Your task to perform on an android device: open app "DuckDuckGo Privacy Browser" (install if not already installed) Image 0: 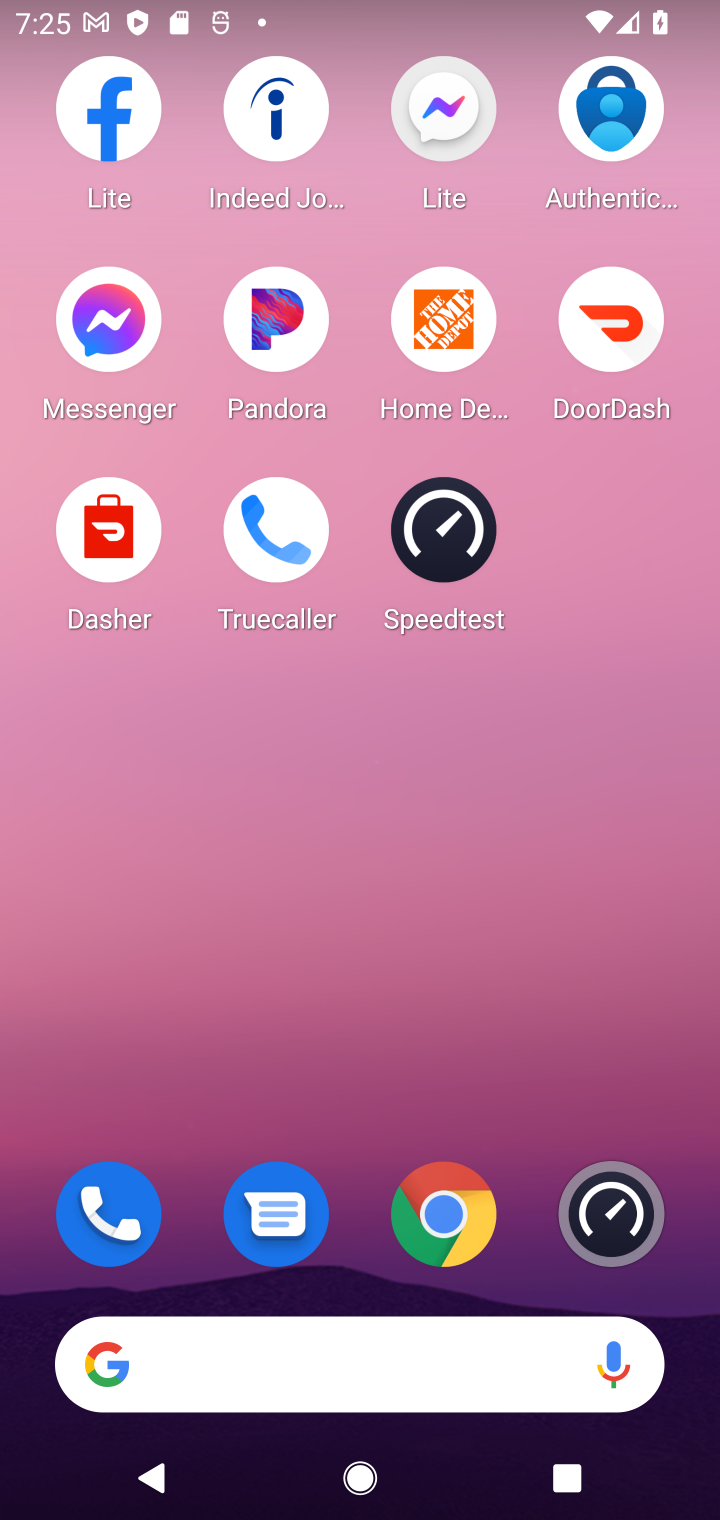
Step 0: drag from (279, 985) to (311, 262)
Your task to perform on an android device: open app "DuckDuckGo Privacy Browser" (install if not already installed) Image 1: 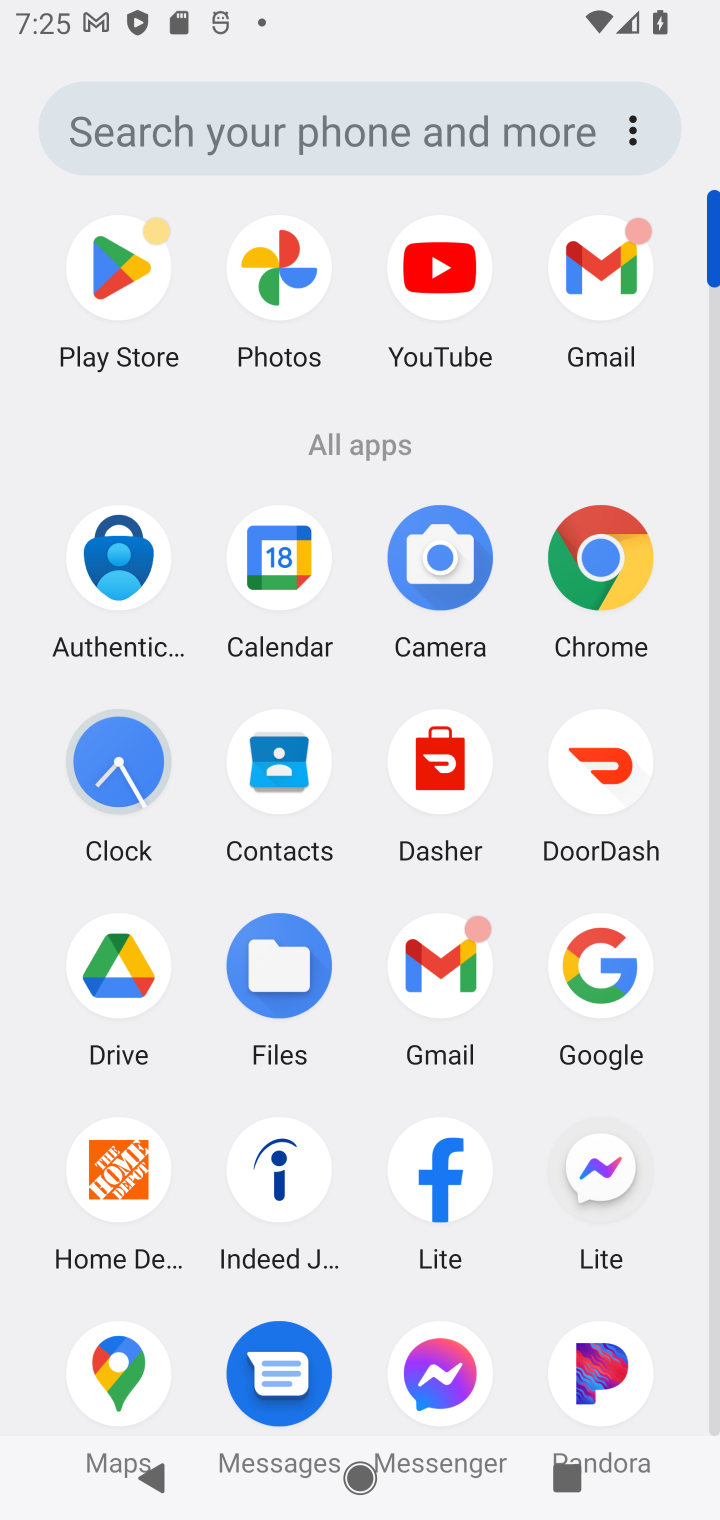
Step 1: click (73, 269)
Your task to perform on an android device: open app "DuckDuckGo Privacy Browser" (install if not already installed) Image 2: 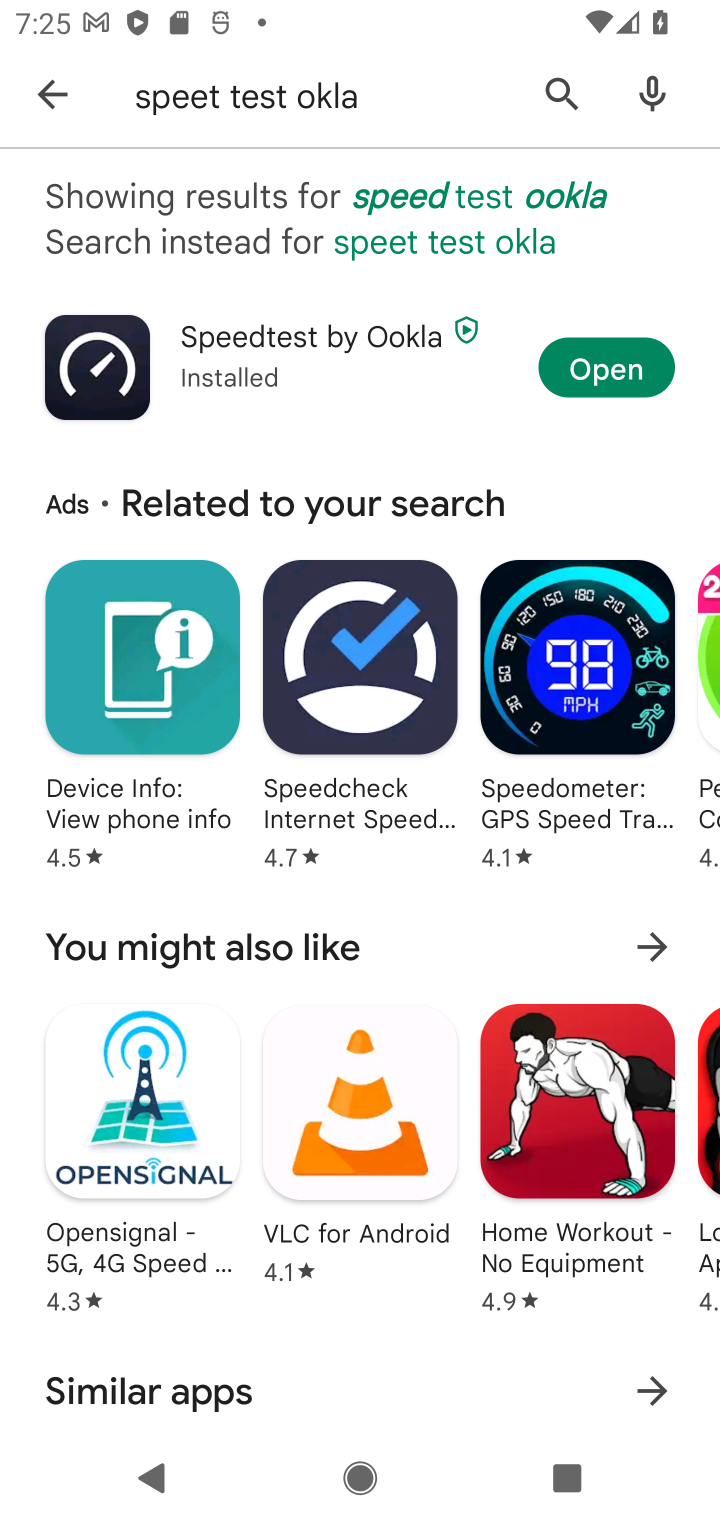
Step 2: click (563, 82)
Your task to perform on an android device: open app "DuckDuckGo Privacy Browser" (install if not already installed) Image 3: 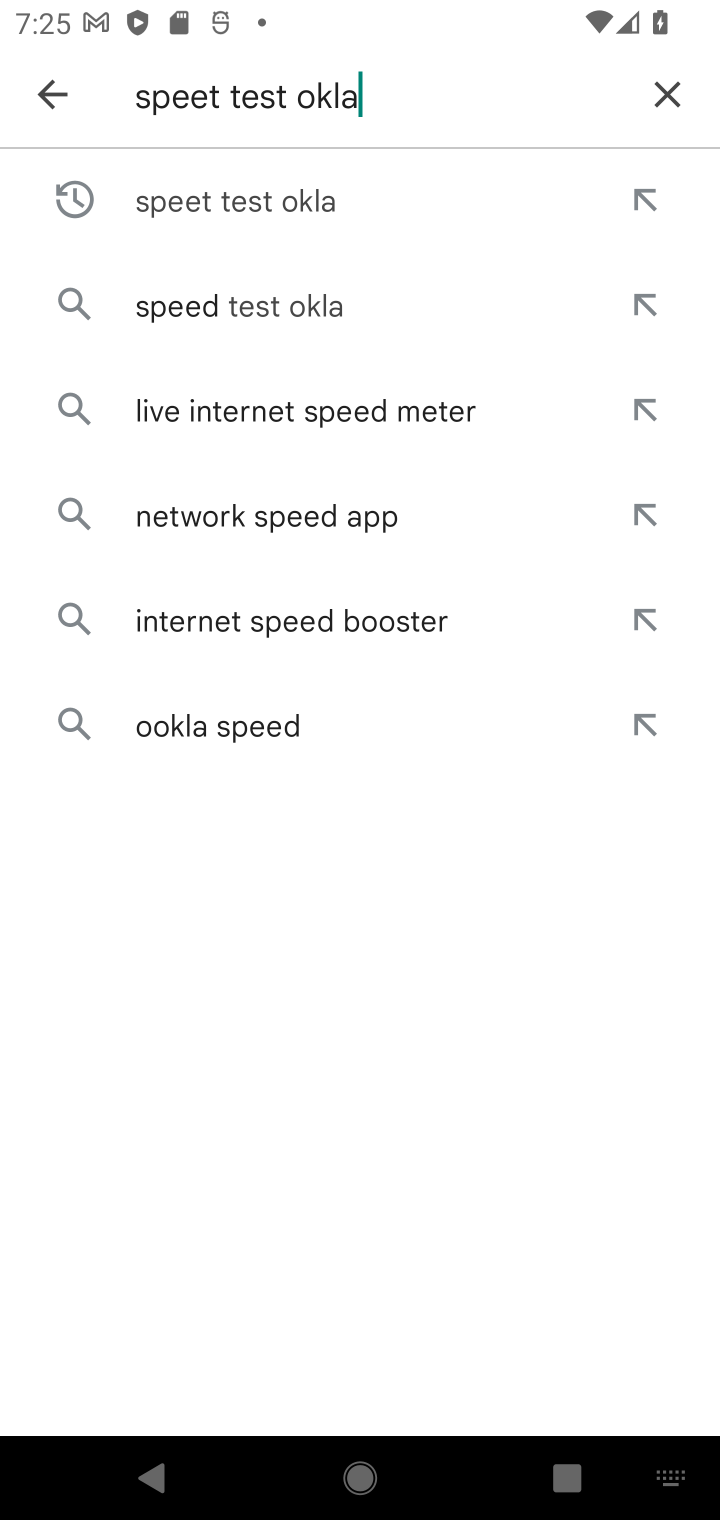
Step 3: click (669, 87)
Your task to perform on an android device: open app "DuckDuckGo Privacy Browser" (install if not already installed) Image 4: 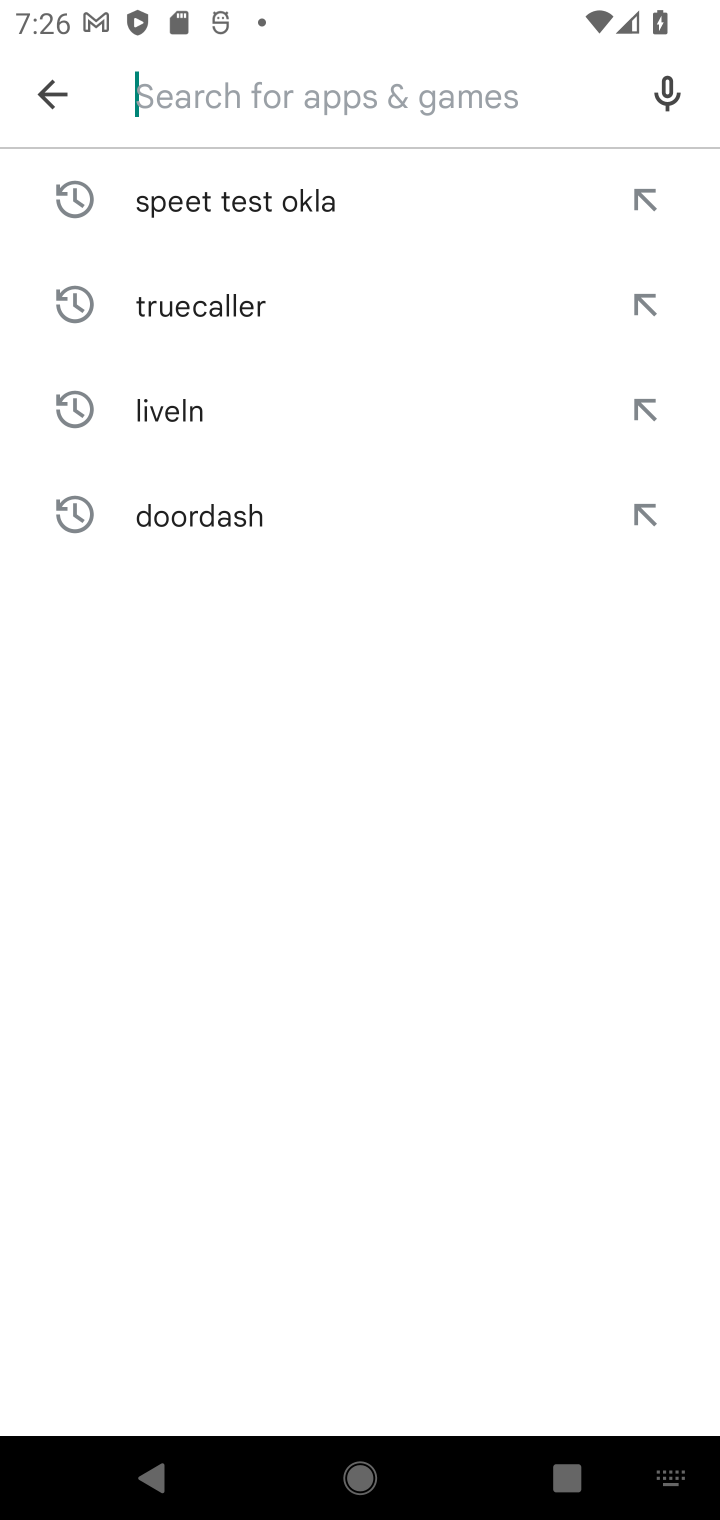
Step 4: click (278, 114)
Your task to perform on an android device: open app "DuckDuckGo Privacy Browser" (install if not already installed) Image 5: 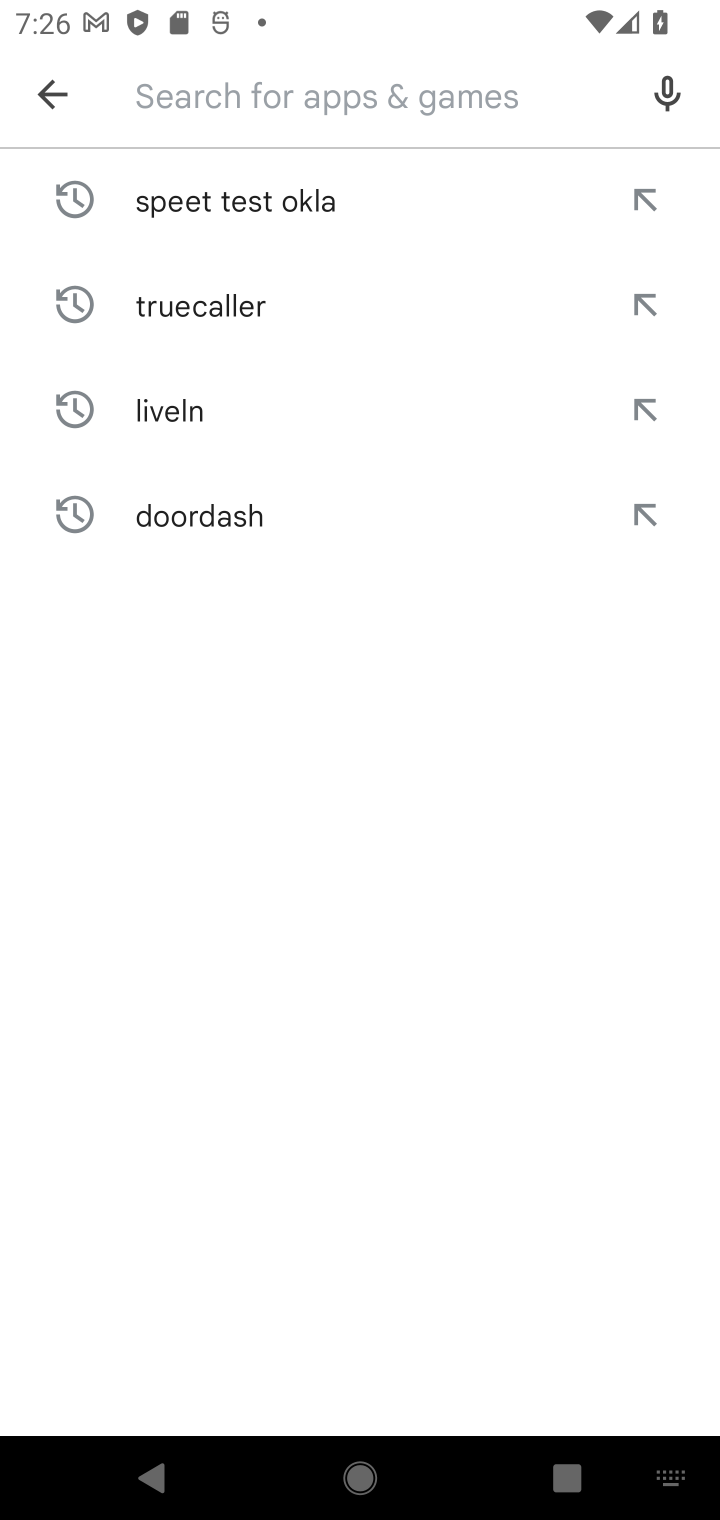
Step 5: type "duckduckgo"
Your task to perform on an android device: open app "DuckDuckGo Privacy Browser" (install if not already installed) Image 6: 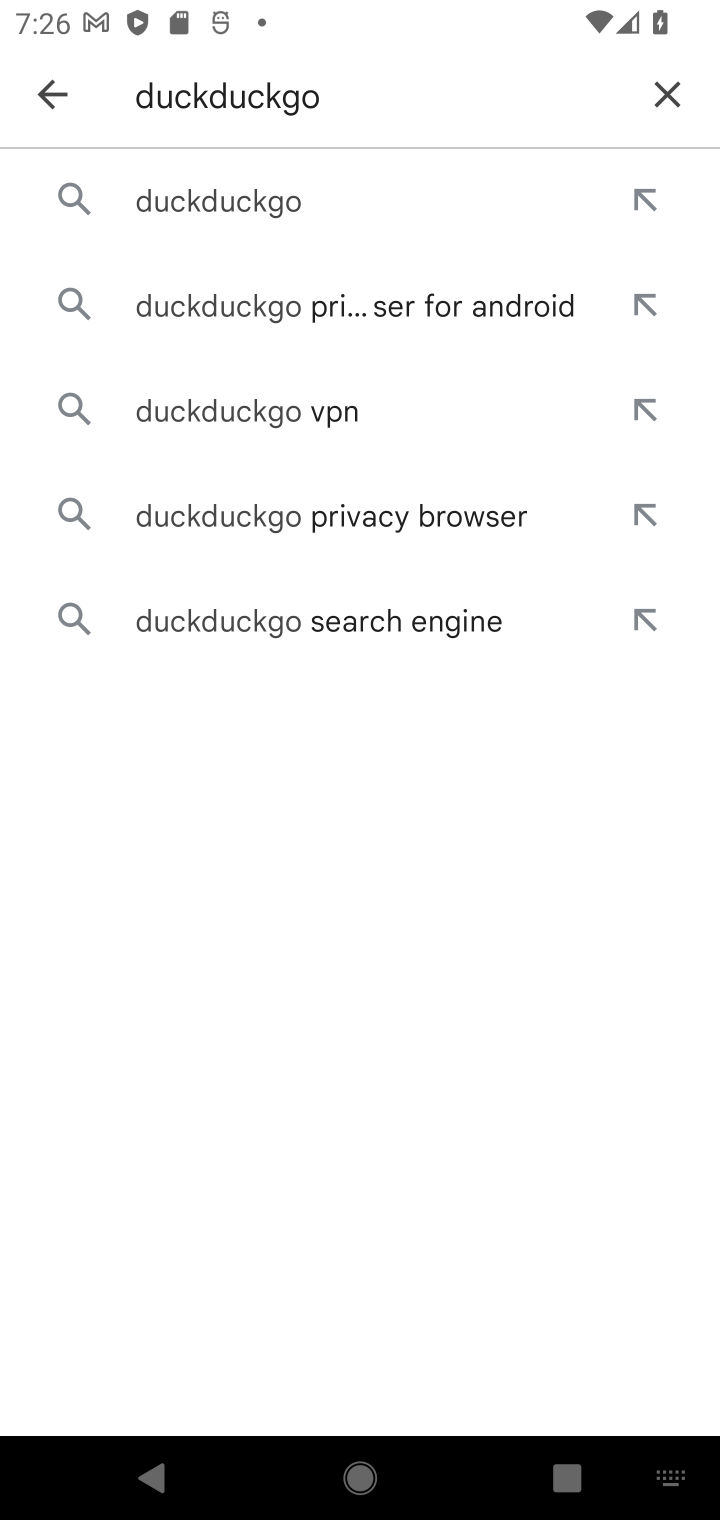
Step 6: click (288, 190)
Your task to perform on an android device: open app "DuckDuckGo Privacy Browser" (install if not already installed) Image 7: 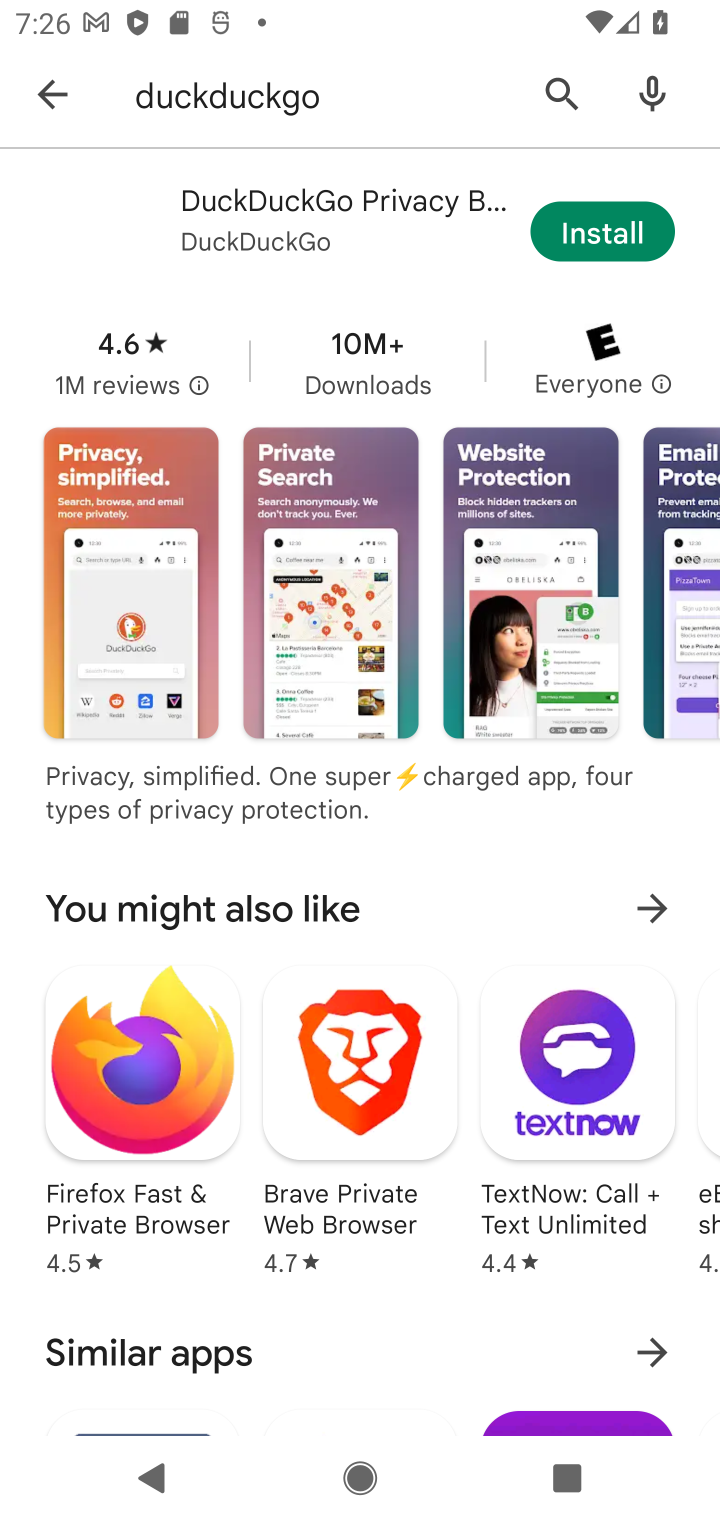
Step 7: click (627, 210)
Your task to perform on an android device: open app "DuckDuckGo Privacy Browser" (install if not already installed) Image 8: 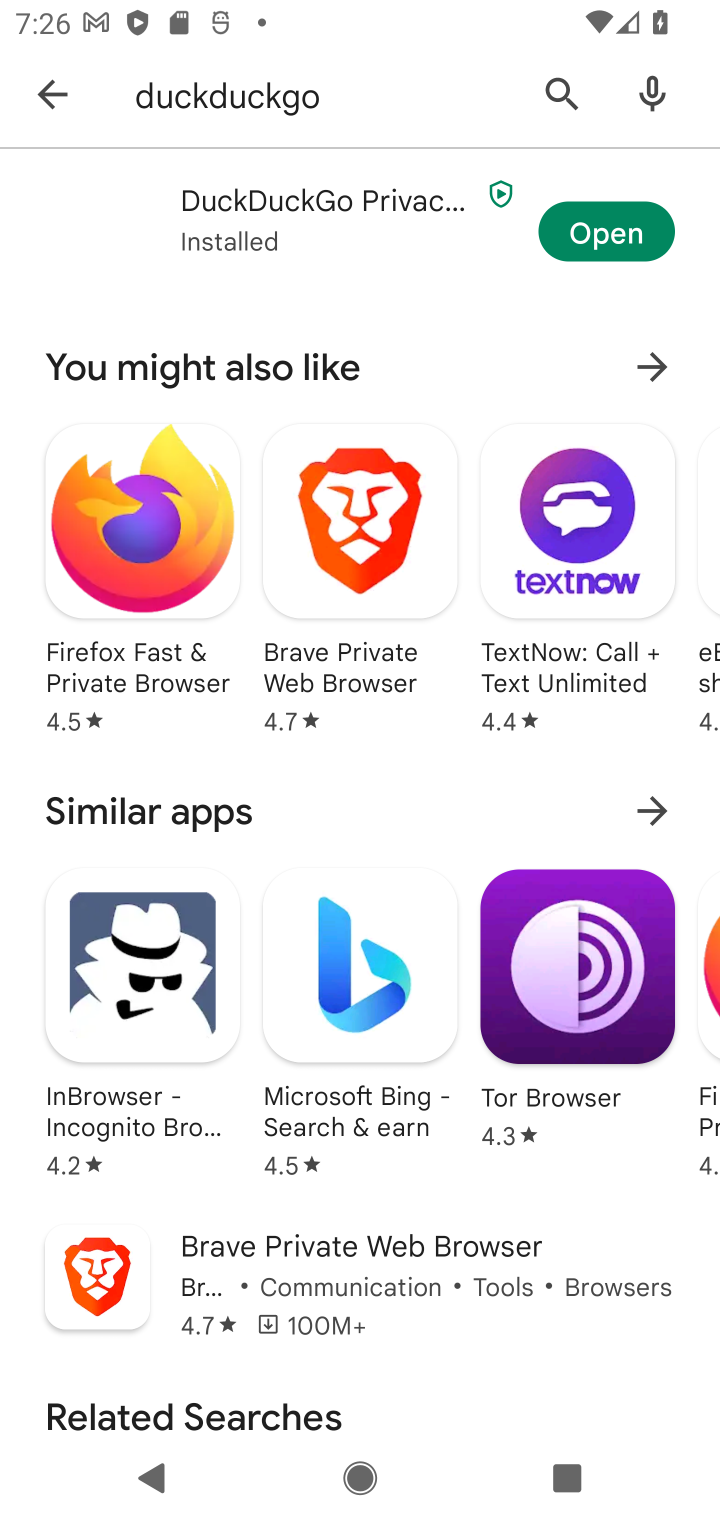
Step 8: click (644, 242)
Your task to perform on an android device: open app "DuckDuckGo Privacy Browser" (install if not already installed) Image 9: 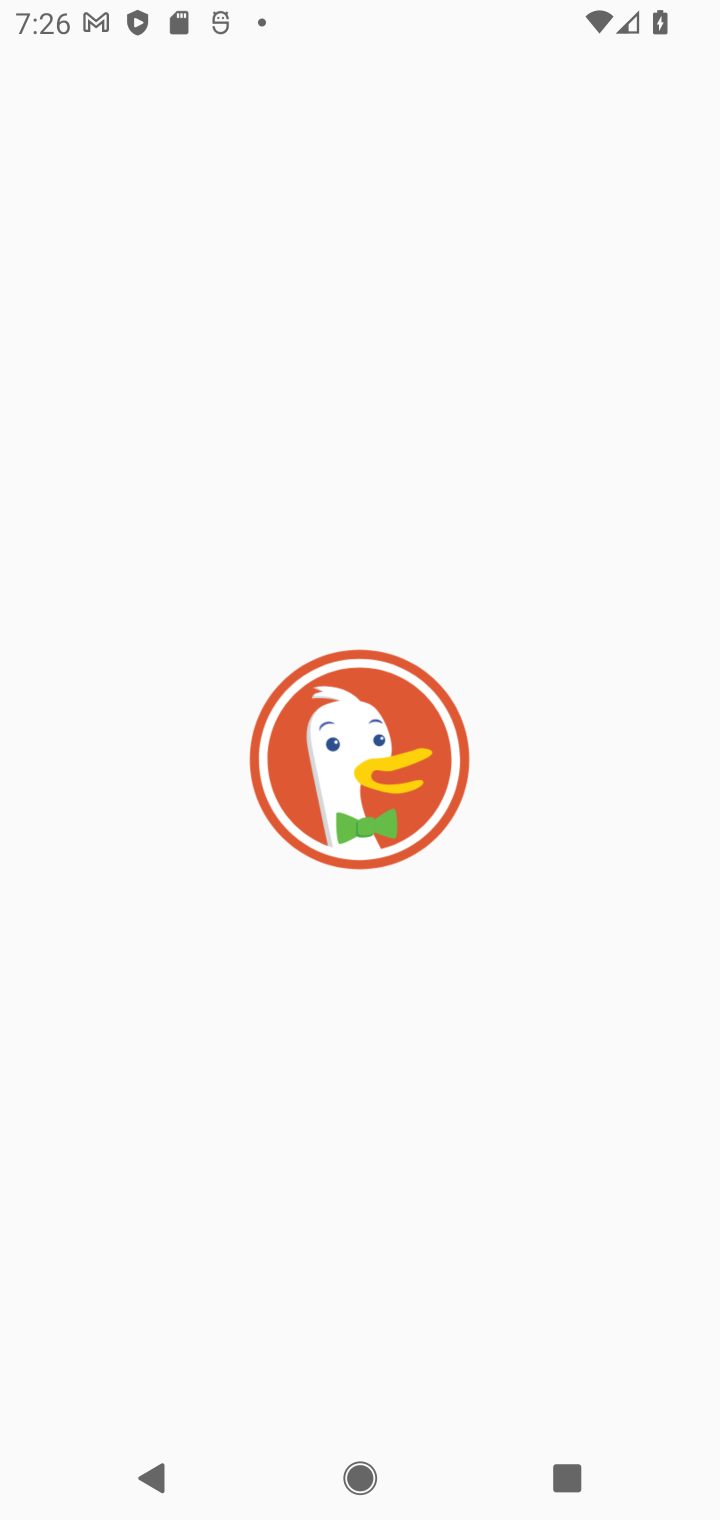
Step 9: task complete